Your task to perform on an android device: turn notification dots off Image 0: 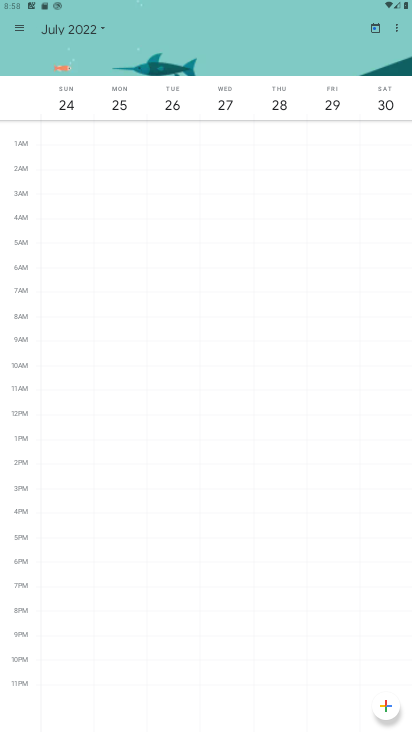
Step 0: press home button
Your task to perform on an android device: turn notification dots off Image 1: 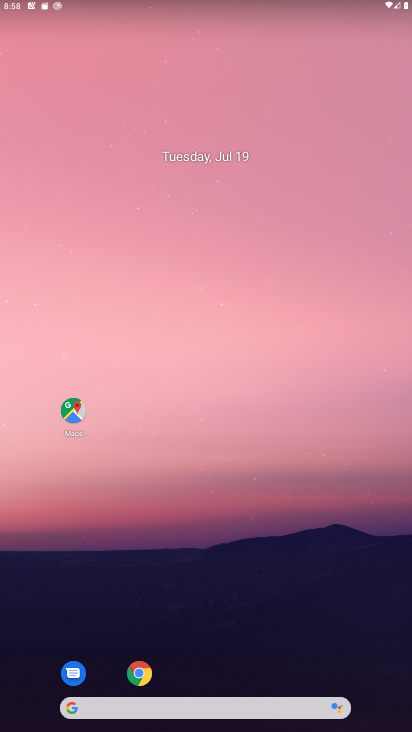
Step 1: drag from (324, 593) to (312, 202)
Your task to perform on an android device: turn notification dots off Image 2: 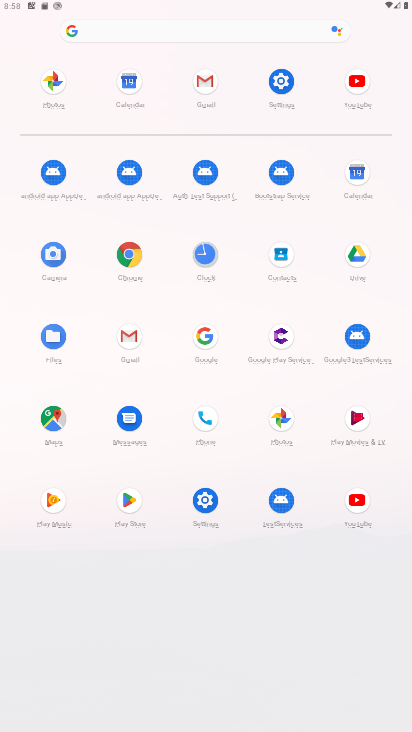
Step 2: click (208, 505)
Your task to perform on an android device: turn notification dots off Image 3: 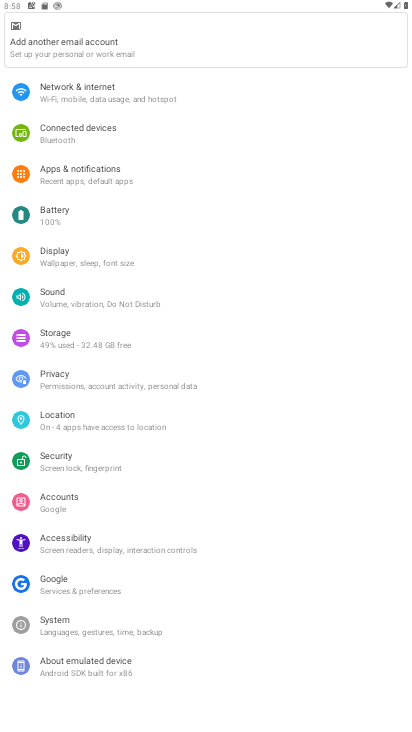
Step 3: click (102, 170)
Your task to perform on an android device: turn notification dots off Image 4: 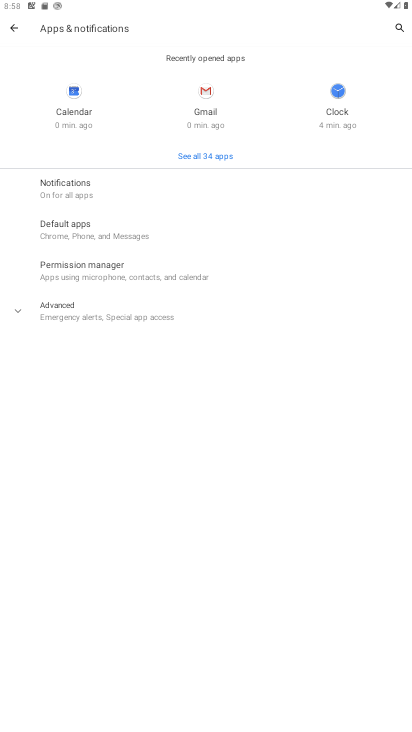
Step 4: click (75, 188)
Your task to perform on an android device: turn notification dots off Image 5: 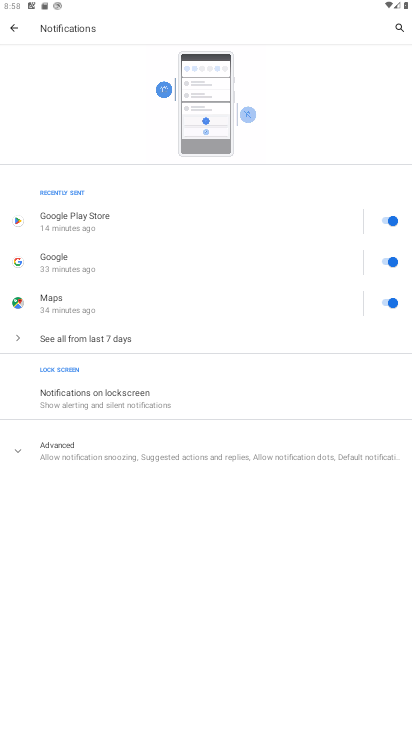
Step 5: click (18, 455)
Your task to perform on an android device: turn notification dots off Image 6: 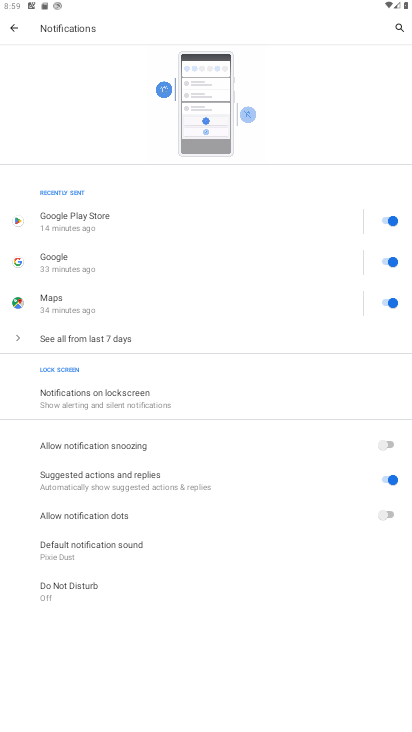
Step 6: task complete